Your task to perform on an android device: turn on sleep mode Image 0: 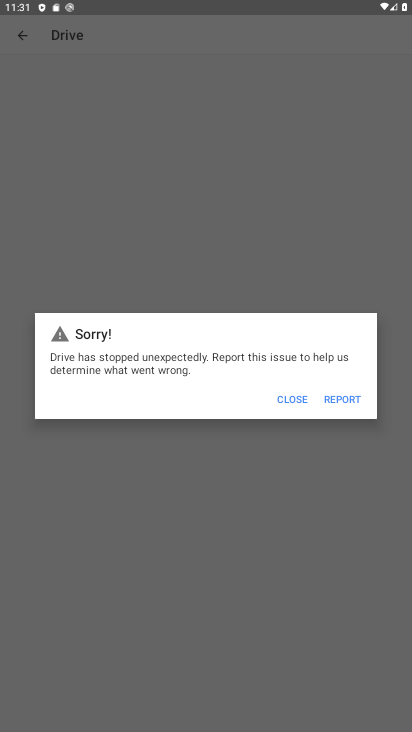
Step 0: click (298, 397)
Your task to perform on an android device: turn on sleep mode Image 1: 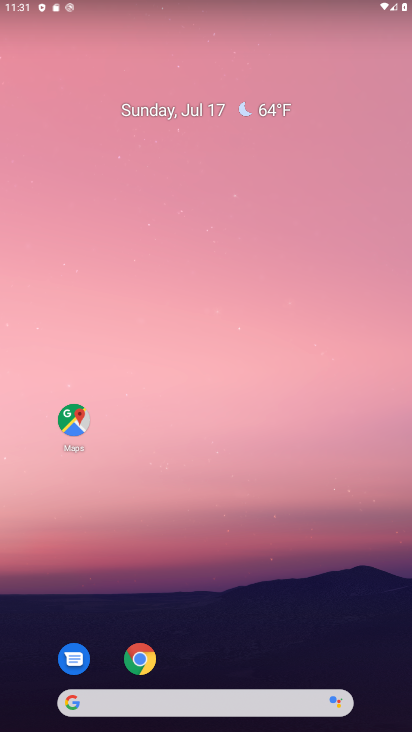
Step 1: drag from (168, 2) to (235, 276)
Your task to perform on an android device: turn on sleep mode Image 2: 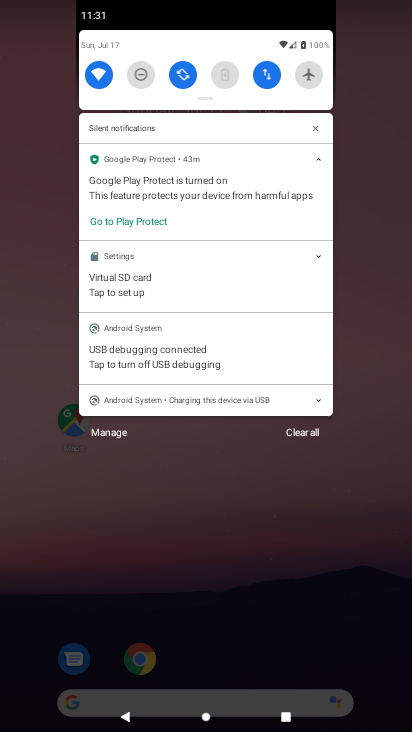
Step 2: drag from (213, 86) to (196, 264)
Your task to perform on an android device: turn on sleep mode Image 3: 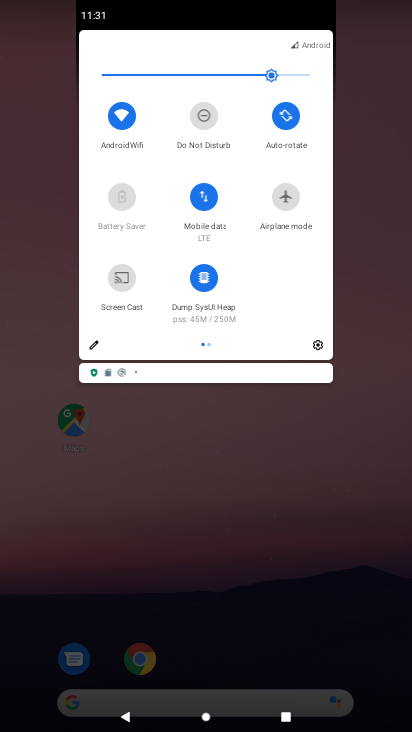
Step 3: drag from (222, 199) to (195, 263)
Your task to perform on an android device: turn on sleep mode Image 4: 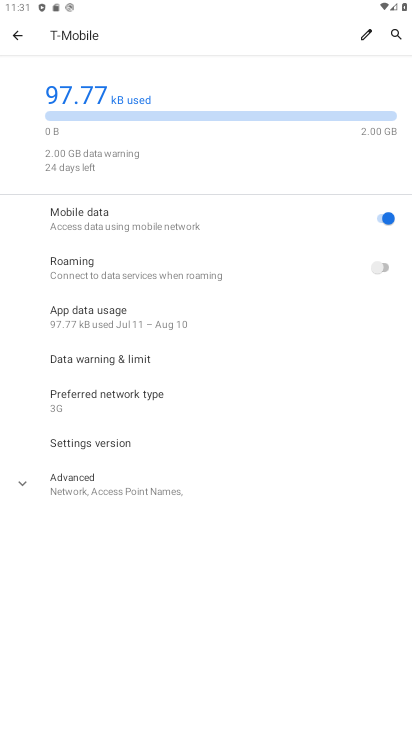
Step 4: click (18, 27)
Your task to perform on an android device: turn on sleep mode Image 5: 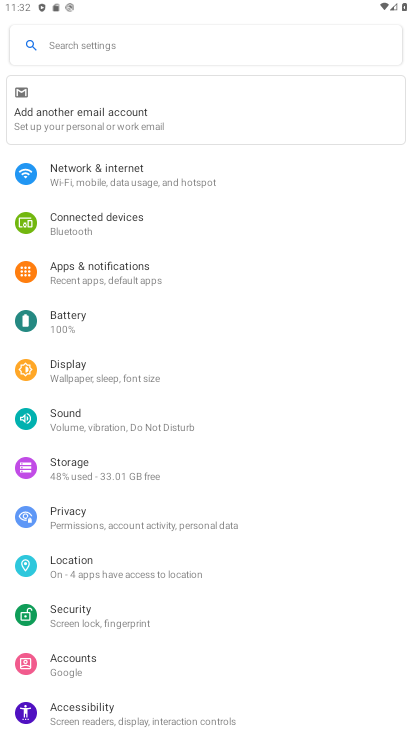
Step 5: drag from (117, 0) to (158, 517)
Your task to perform on an android device: turn on sleep mode Image 6: 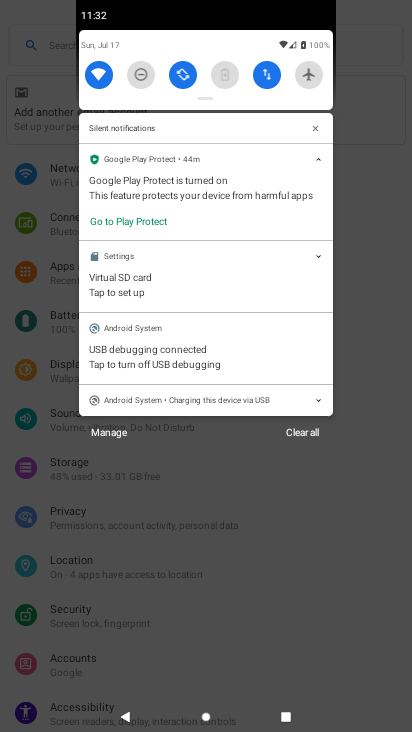
Step 6: drag from (212, 87) to (227, 393)
Your task to perform on an android device: turn on sleep mode Image 7: 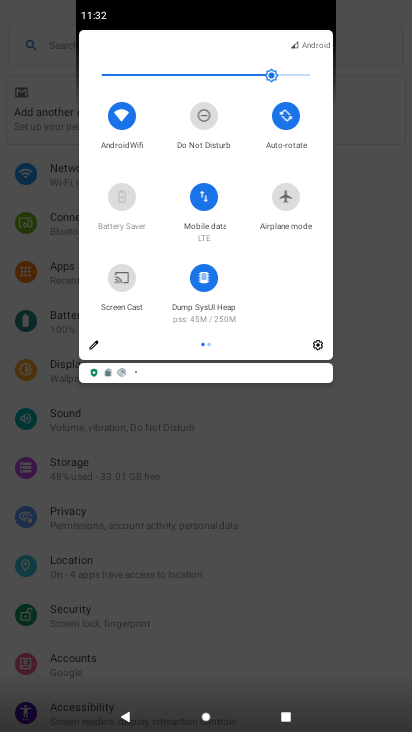
Step 7: click (206, 343)
Your task to perform on an android device: turn on sleep mode Image 8: 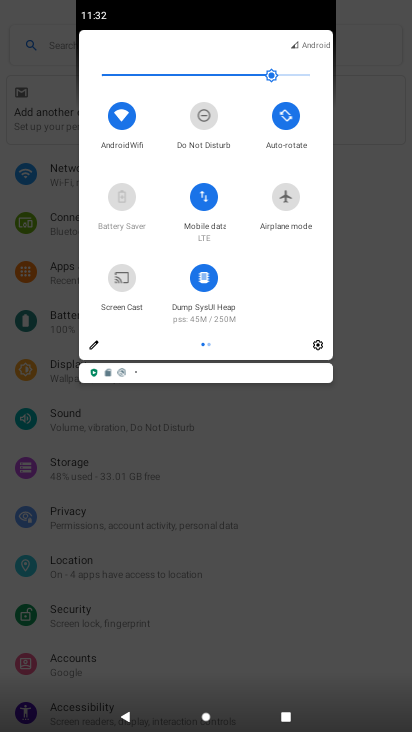
Step 8: task complete